Your task to perform on an android device: turn on notifications settings in the gmail app Image 0: 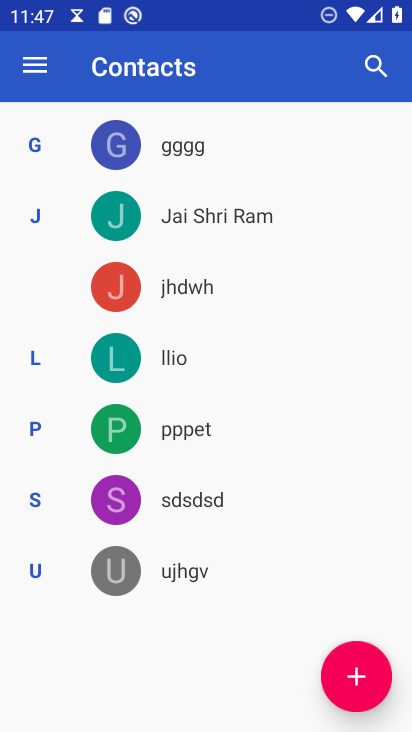
Step 0: press home button
Your task to perform on an android device: turn on notifications settings in the gmail app Image 1: 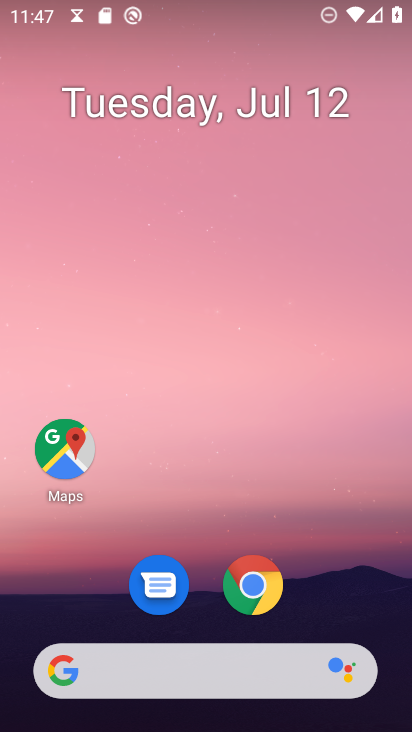
Step 1: drag from (218, 620) to (266, 172)
Your task to perform on an android device: turn on notifications settings in the gmail app Image 2: 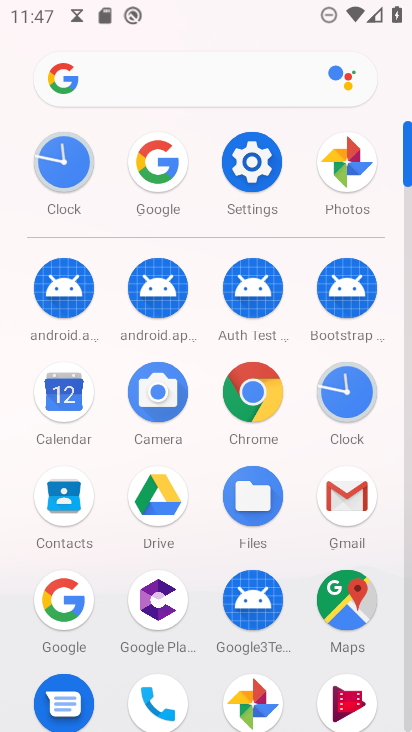
Step 2: click (335, 507)
Your task to perform on an android device: turn on notifications settings in the gmail app Image 3: 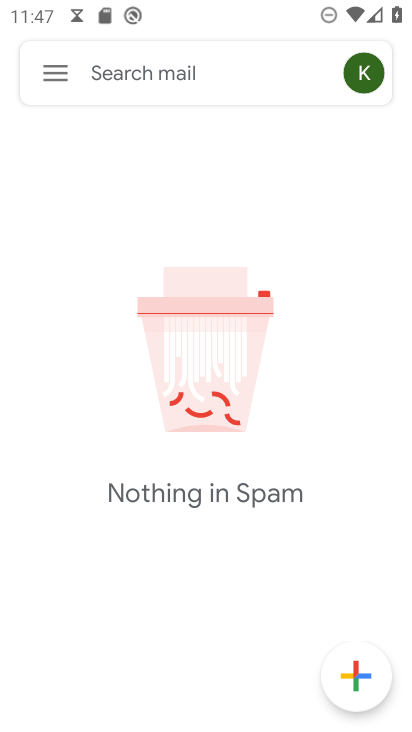
Step 3: click (58, 72)
Your task to perform on an android device: turn on notifications settings in the gmail app Image 4: 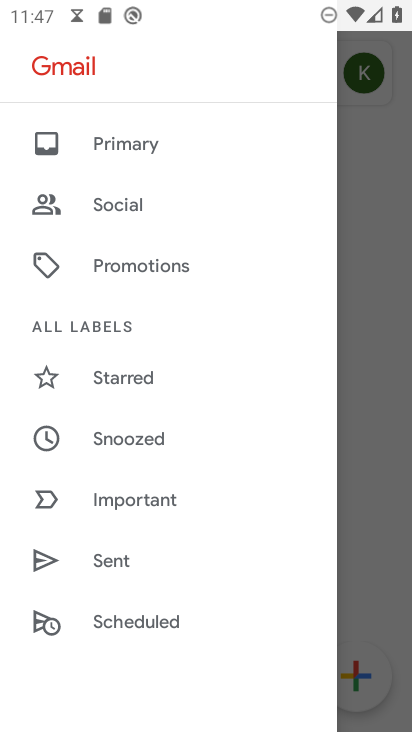
Step 4: drag from (181, 650) to (229, 122)
Your task to perform on an android device: turn on notifications settings in the gmail app Image 5: 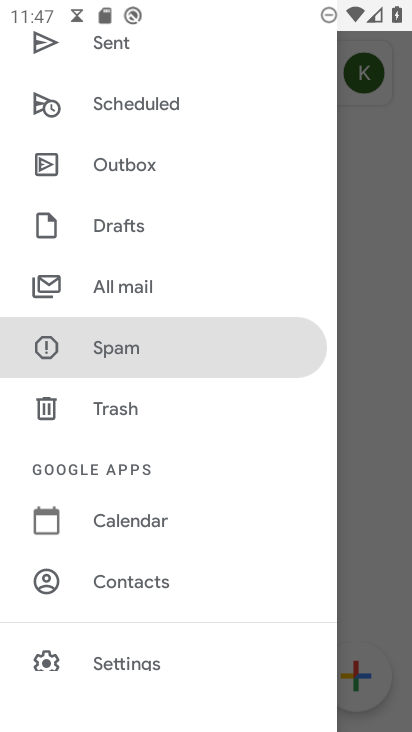
Step 5: click (141, 658)
Your task to perform on an android device: turn on notifications settings in the gmail app Image 6: 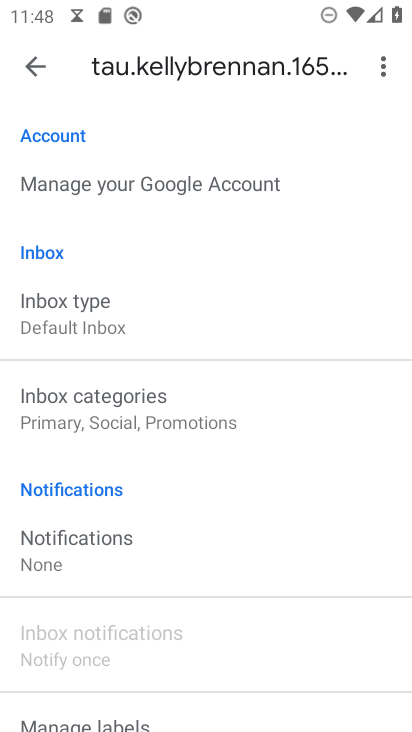
Step 6: click (84, 554)
Your task to perform on an android device: turn on notifications settings in the gmail app Image 7: 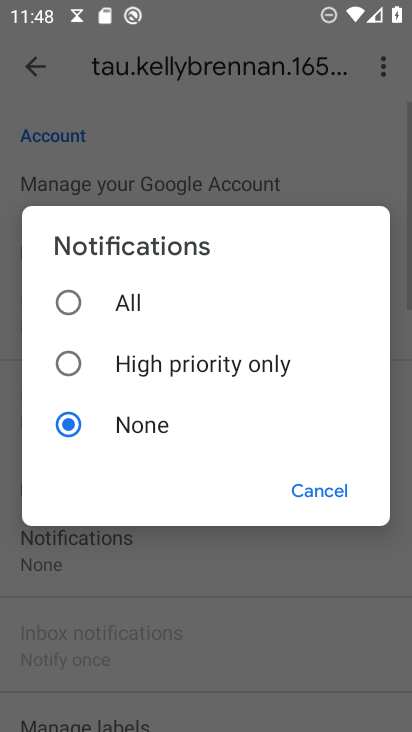
Step 7: click (68, 296)
Your task to perform on an android device: turn on notifications settings in the gmail app Image 8: 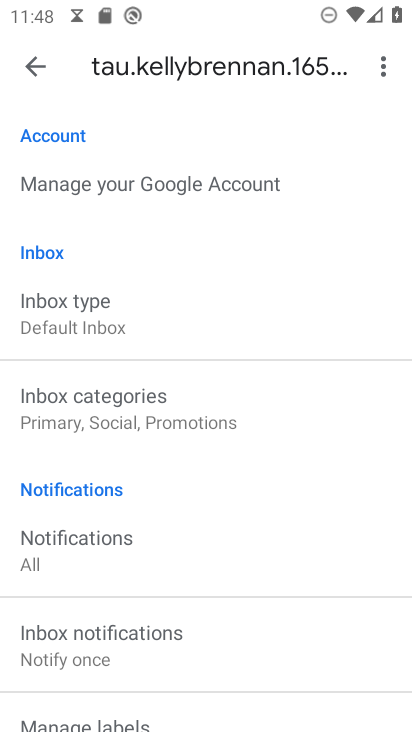
Step 8: task complete